Your task to perform on an android device: turn on javascript in the chrome app Image 0: 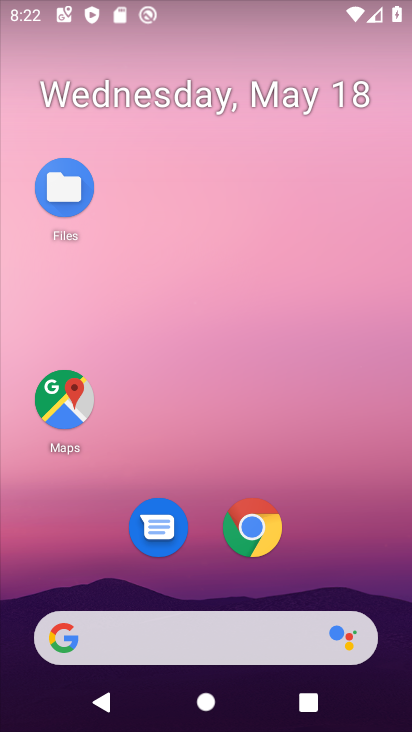
Step 0: drag from (244, 689) to (165, 190)
Your task to perform on an android device: turn on javascript in the chrome app Image 1: 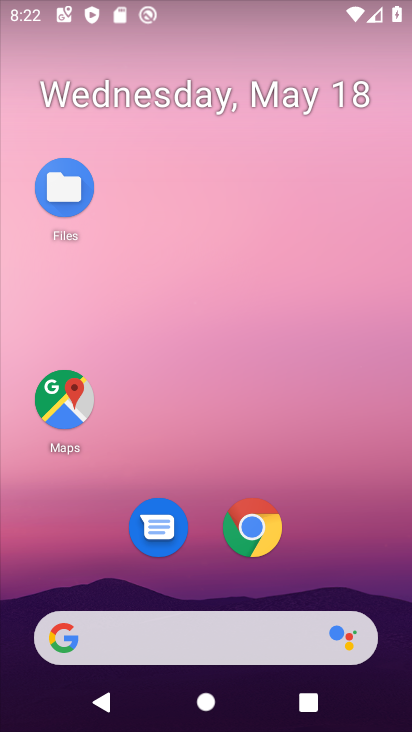
Step 1: drag from (317, 473) to (174, 129)
Your task to perform on an android device: turn on javascript in the chrome app Image 2: 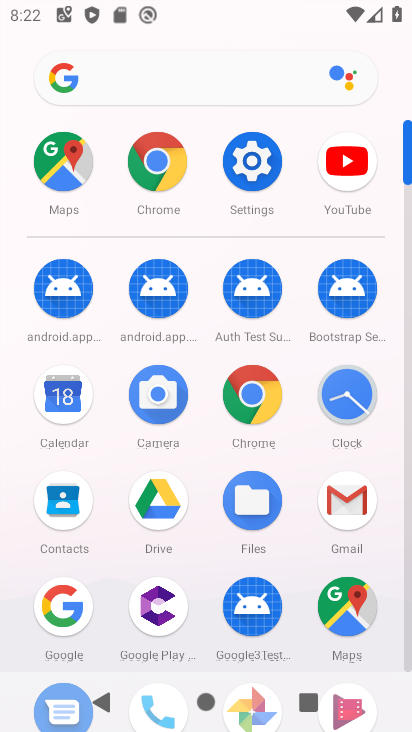
Step 2: click (245, 394)
Your task to perform on an android device: turn on javascript in the chrome app Image 3: 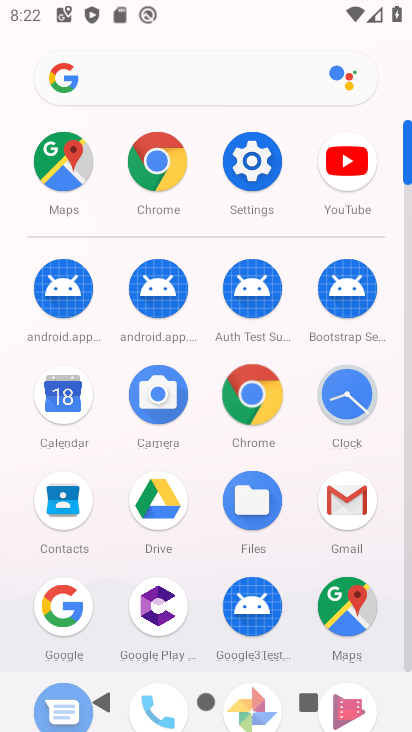
Step 3: click (245, 394)
Your task to perform on an android device: turn on javascript in the chrome app Image 4: 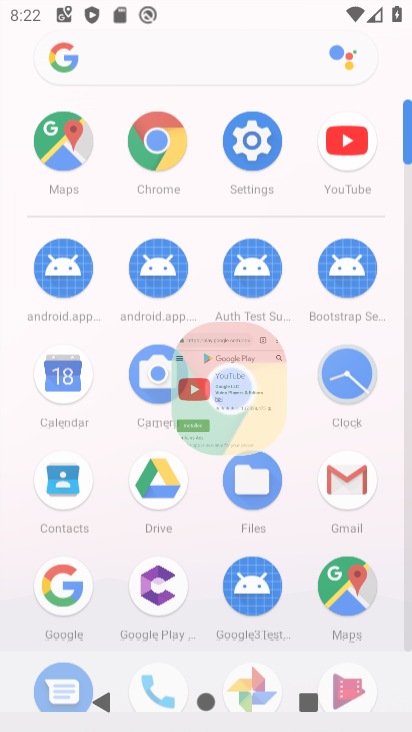
Step 4: click (246, 393)
Your task to perform on an android device: turn on javascript in the chrome app Image 5: 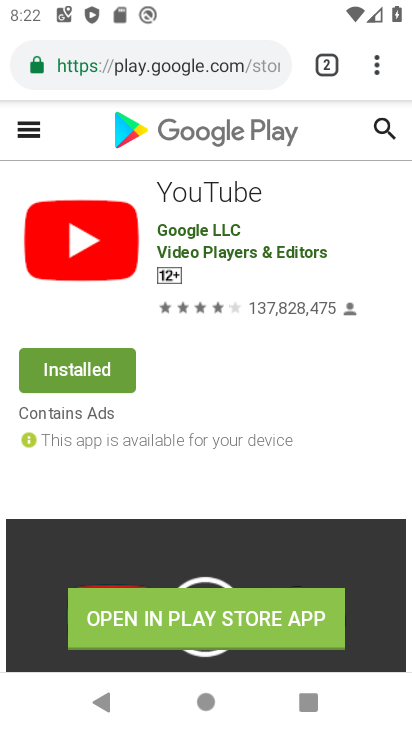
Step 5: drag from (380, 68) to (136, 579)
Your task to perform on an android device: turn on javascript in the chrome app Image 6: 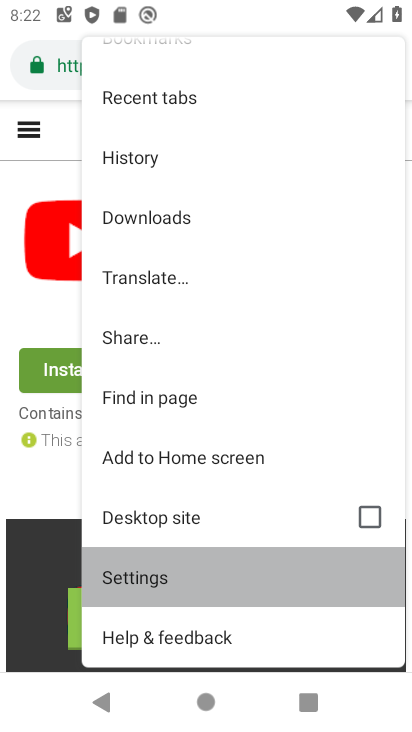
Step 6: click (138, 576)
Your task to perform on an android device: turn on javascript in the chrome app Image 7: 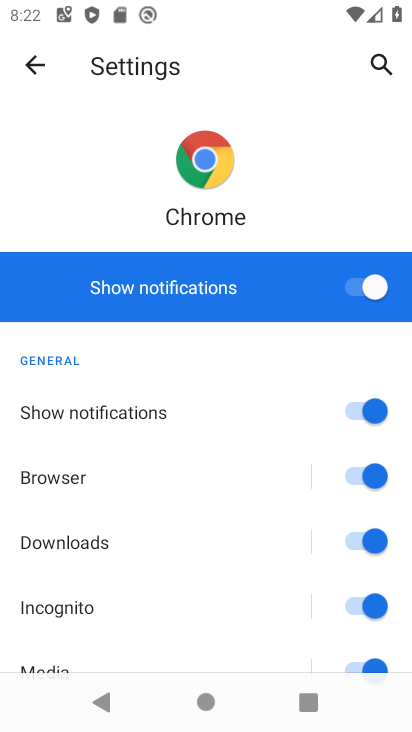
Step 7: click (22, 61)
Your task to perform on an android device: turn on javascript in the chrome app Image 8: 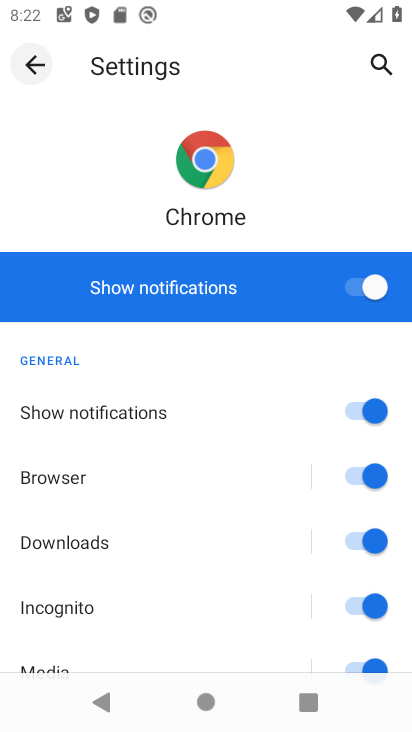
Step 8: click (23, 61)
Your task to perform on an android device: turn on javascript in the chrome app Image 9: 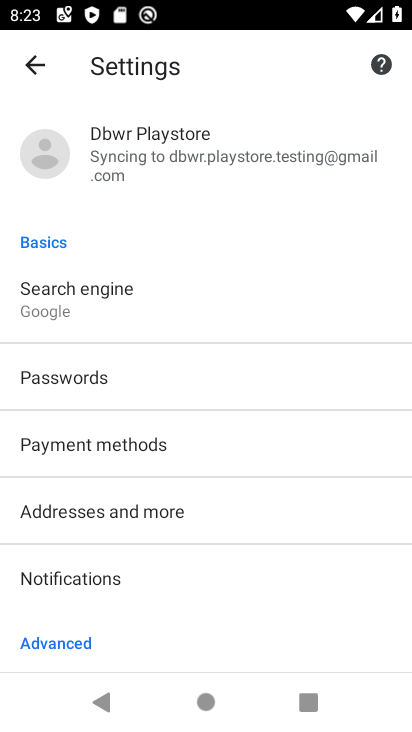
Step 9: drag from (138, 555) to (99, 230)
Your task to perform on an android device: turn on javascript in the chrome app Image 10: 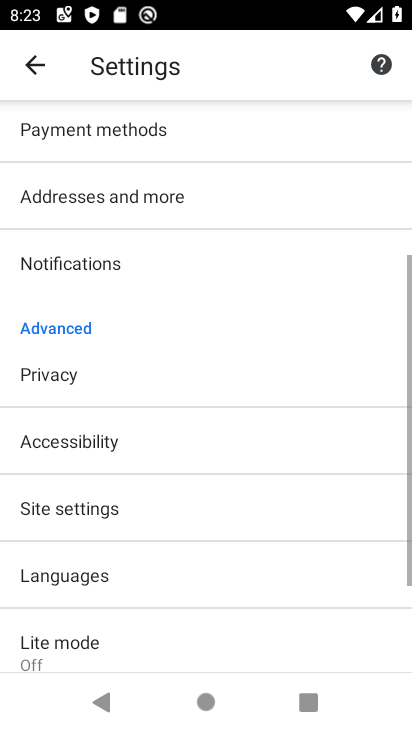
Step 10: drag from (161, 486) to (148, 151)
Your task to perform on an android device: turn on javascript in the chrome app Image 11: 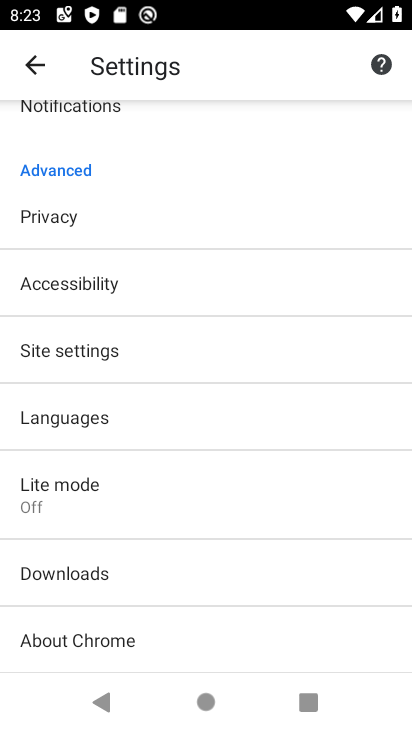
Step 11: click (56, 354)
Your task to perform on an android device: turn on javascript in the chrome app Image 12: 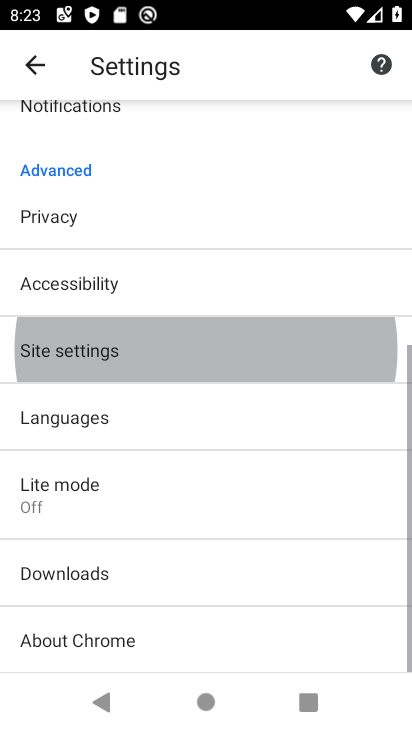
Step 12: click (56, 354)
Your task to perform on an android device: turn on javascript in the chrome app Image 13: 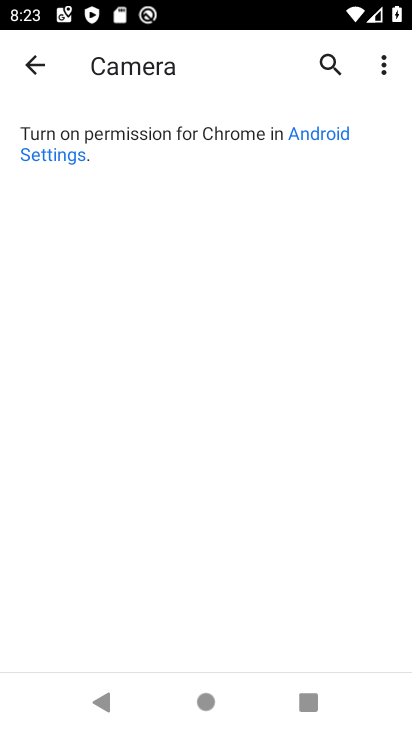
Step 13: click (40, 66)
Your task to perform on an android device: turn on javascript in the chrome app Image 14: 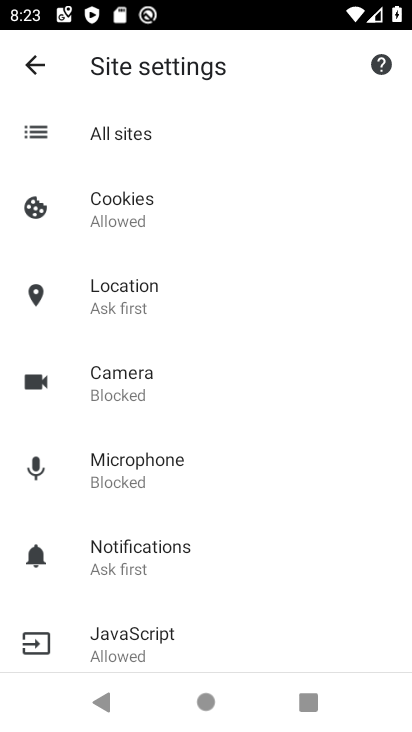
Step 14: click (126, 650)
Your task to perform on an android device: turn on javascript in the chrome app Image 15: 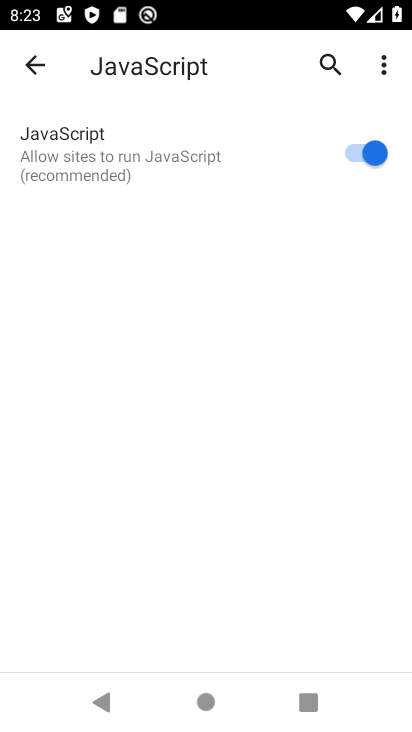
Step 15: task complete